Your task to perform on an android device: What's the weather? Image 0: 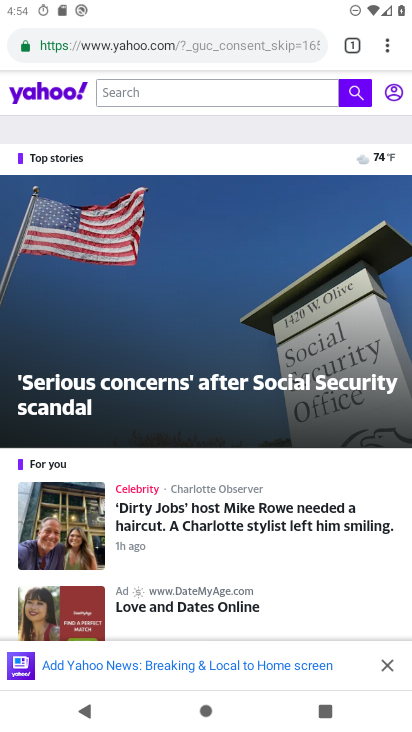
Step 0: press home button
Your task to perform on an android device: What's the weather? Image 1: 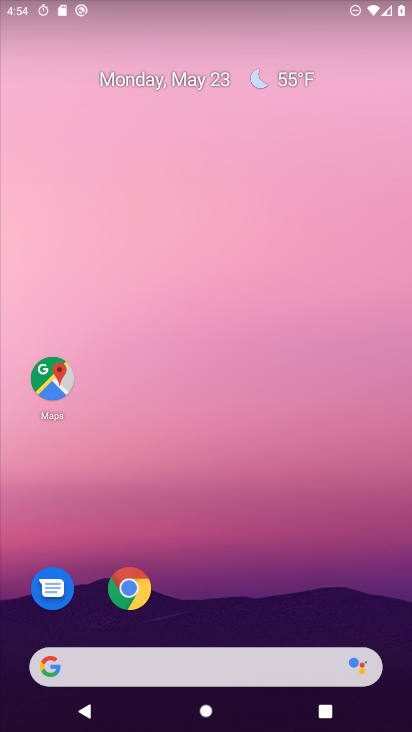
Step 1: drag from (214, 579) to (226, 88)
Your task to perform on an android device: What's the weather? Image 2: 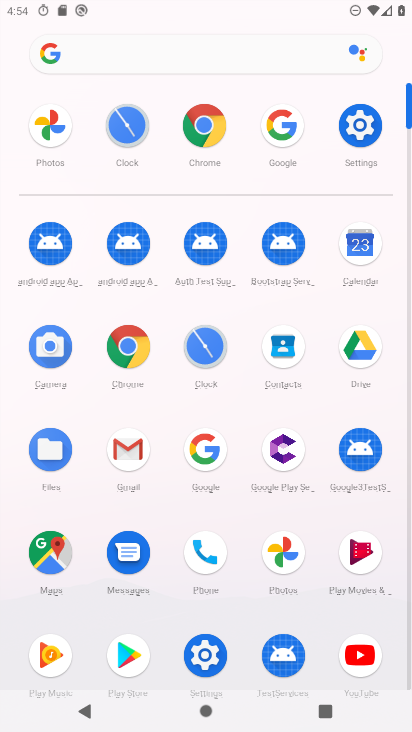
Step 2: click (204, 453)
Your task to perform on an android device: What's the weather? Image 3: 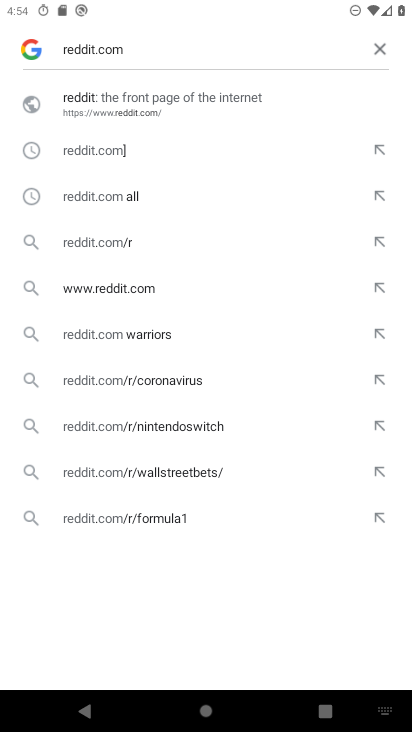
Step 3: click (165, 50)
Your task to perform on an android device: What's the weather? Image 4: 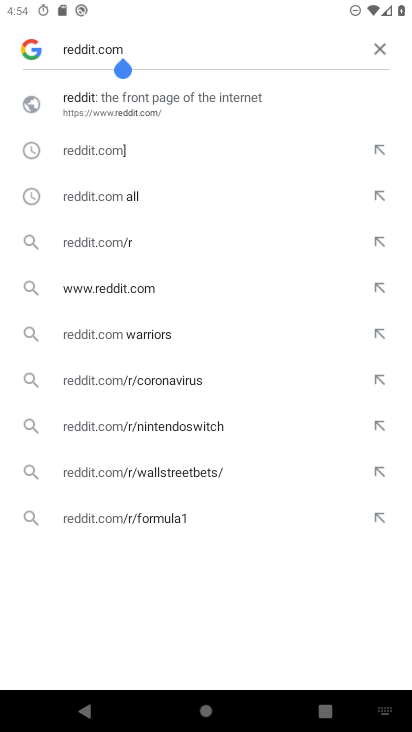
Step 4: click (390, 45)
Your task to perform on an android device: What's the weather? Image 5: 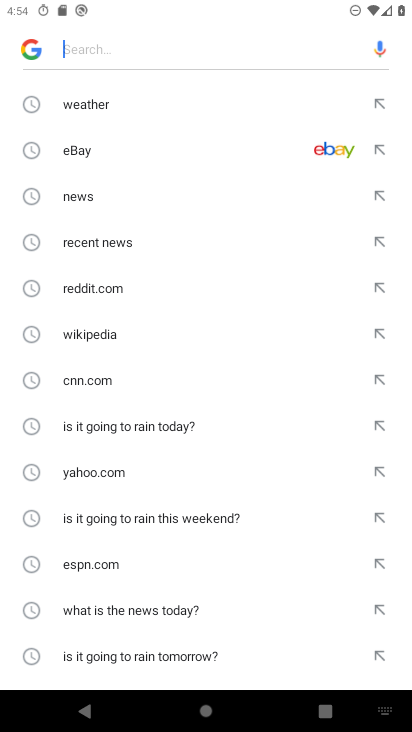
Step 5: click (89, 112)
Your task to perform on an android device: What's the weather? Image 6: 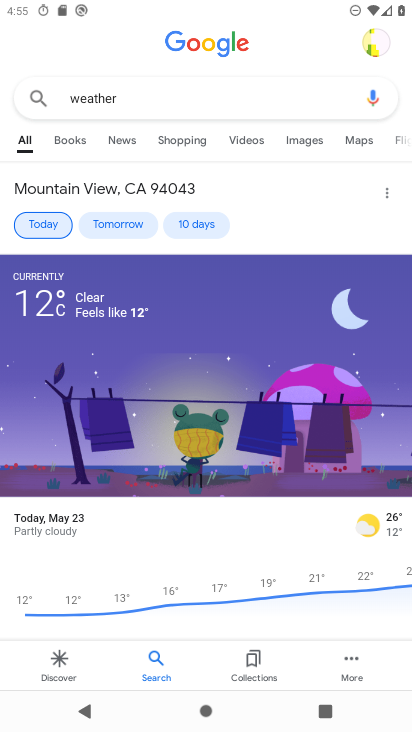
Step 6: task complete